Your task to perform on an android device: Show me the alarms in the clock app Image 0: 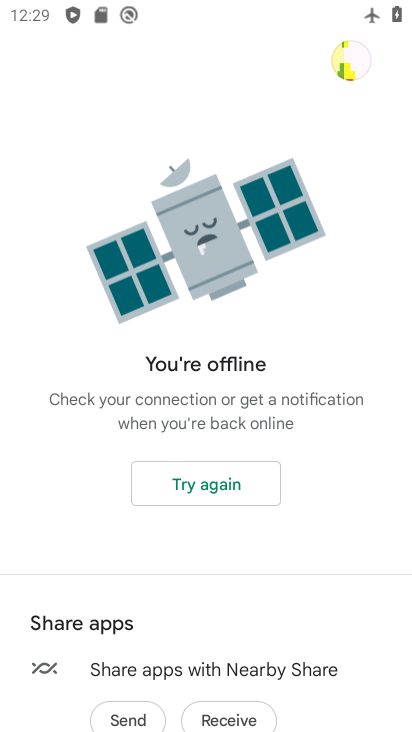
Step 0: press home button
Your task to perform on an android device: Show me the alarms in the clock app Image 1: 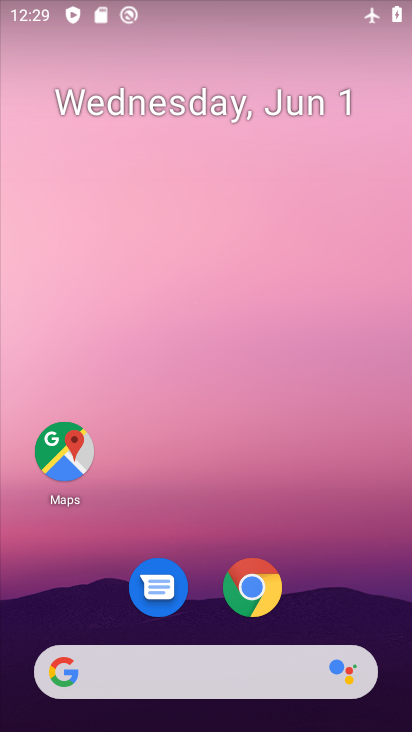
Step 1: drag from (290, 494) to (250, 192)
Your task to perform on an android device: Show me the alarms in the clock app Image 2: 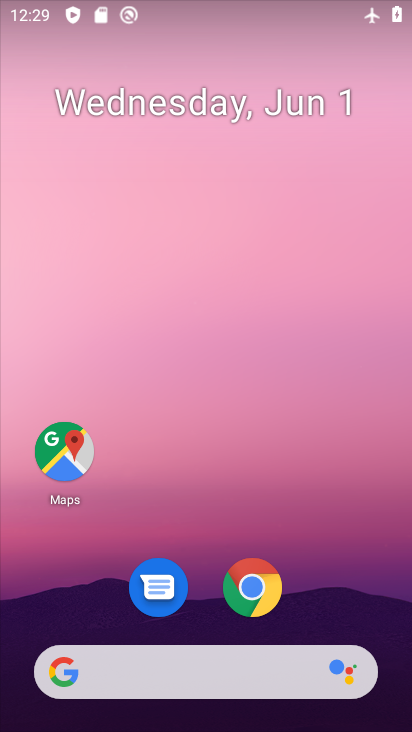
Step 2: drag from (207, 477) to (201, 90)
Your task to perform on an android device: Show me the alarms in the clock app Image 3: 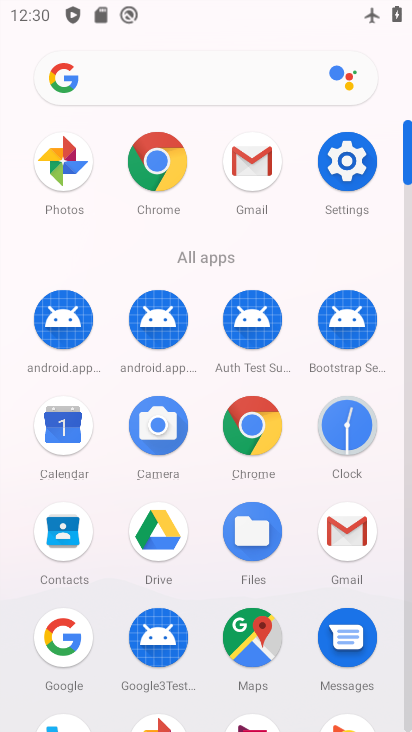
Step 3: click (349, 421)
Your task to perform on an android device: Show me the alarms in the clock app Image 4: 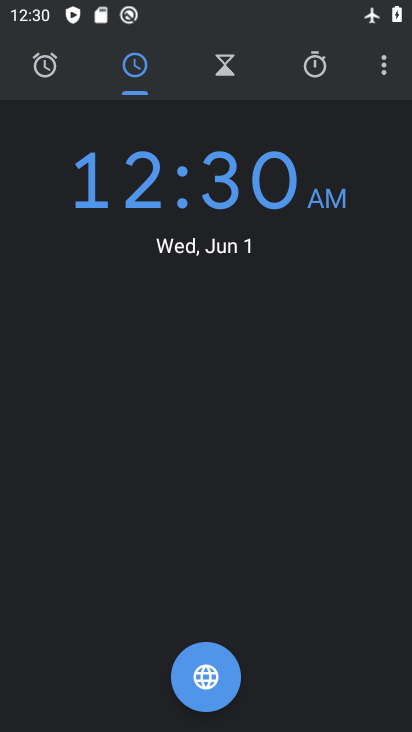
Step 4: click (32, 68)
Your task to perform on an android device: Show me the alarms in the clock app Image 5: 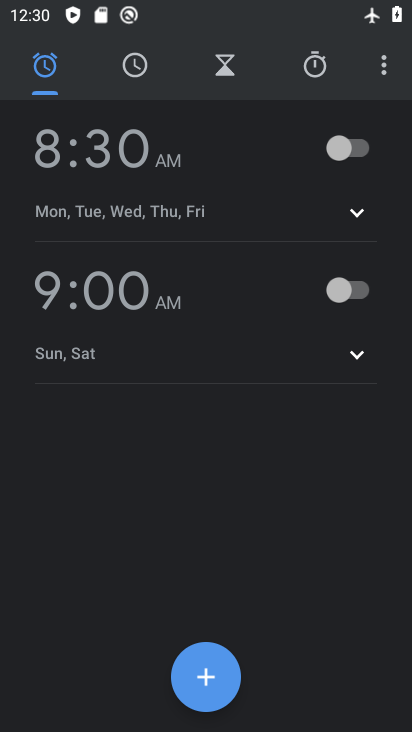
Step 5: task complete